Your task to perform on an android device: Go to wifi settings Image 0: 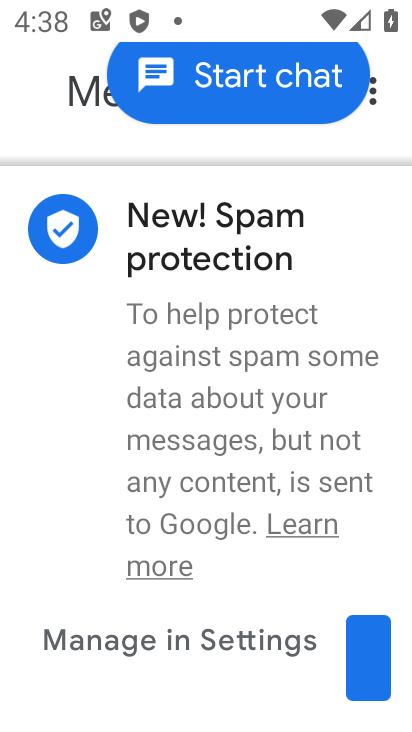
Step 0: drag from (180, 563) to (225, 179)
Your task to perform on an android device: Go to wifi settings Image 1: 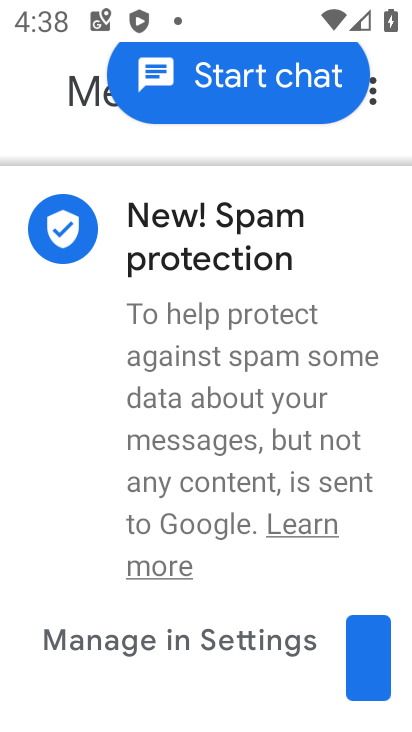
Step 1: press home button
Your task to perform on an android device: Go to wifi settings Image 2: 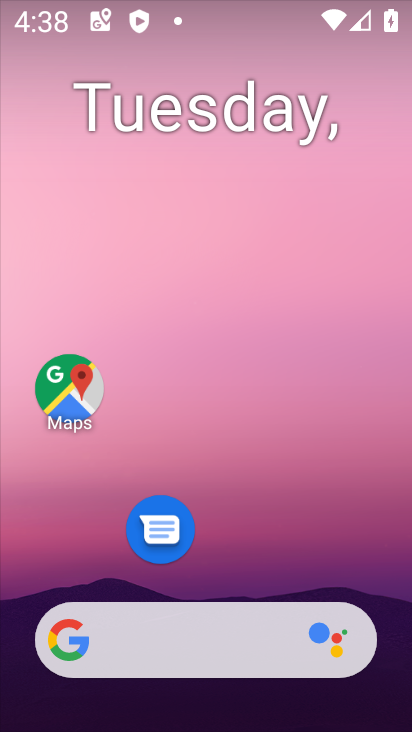
Step 2: drag from (175, 587) to (261, 187)
Your task to perform on an android device: Go to wifi settings Image 3: 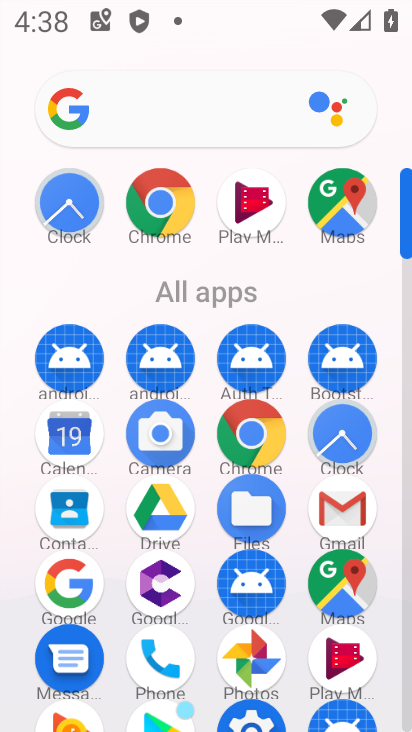
Step 3: drag from (194, 671) to (230, 371)
Your task to perform on an android device: Go to wifi settings Image 4: 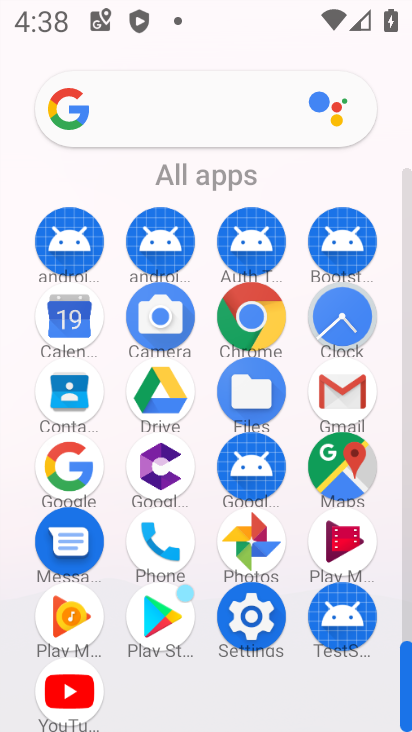
Step 4: click (250, 604)
Your task to perform on an android device: Go to wifi settings Image 5: 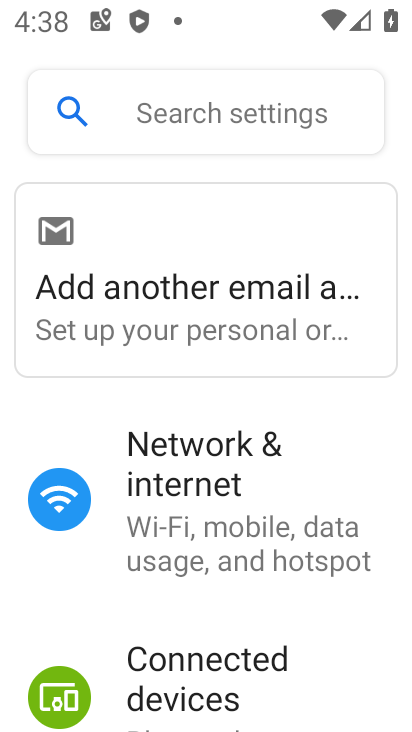
Step 5: click (198, 505)
Your task to perform on an android device: Go to wifi settings Image 6: 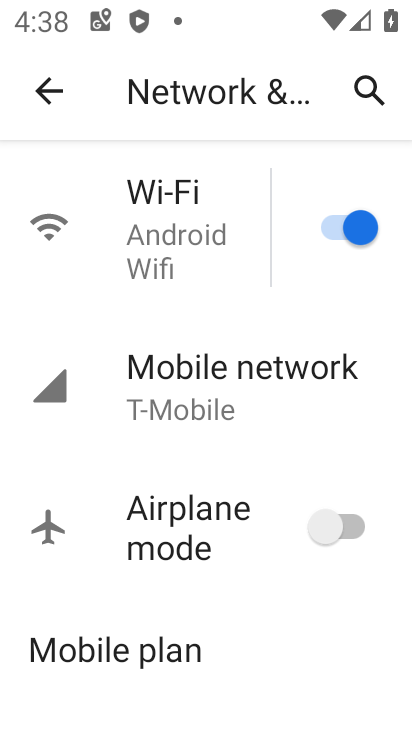
Step 6: click (158, 245)
Your task to perform on an android device: Go to wifi settings Image 7: 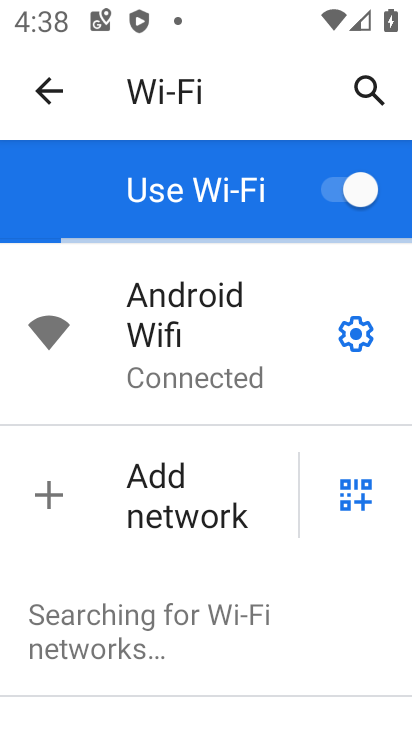
Step 7: task complete